Your task to perform on an android device: Open the stopwatch Image 0: 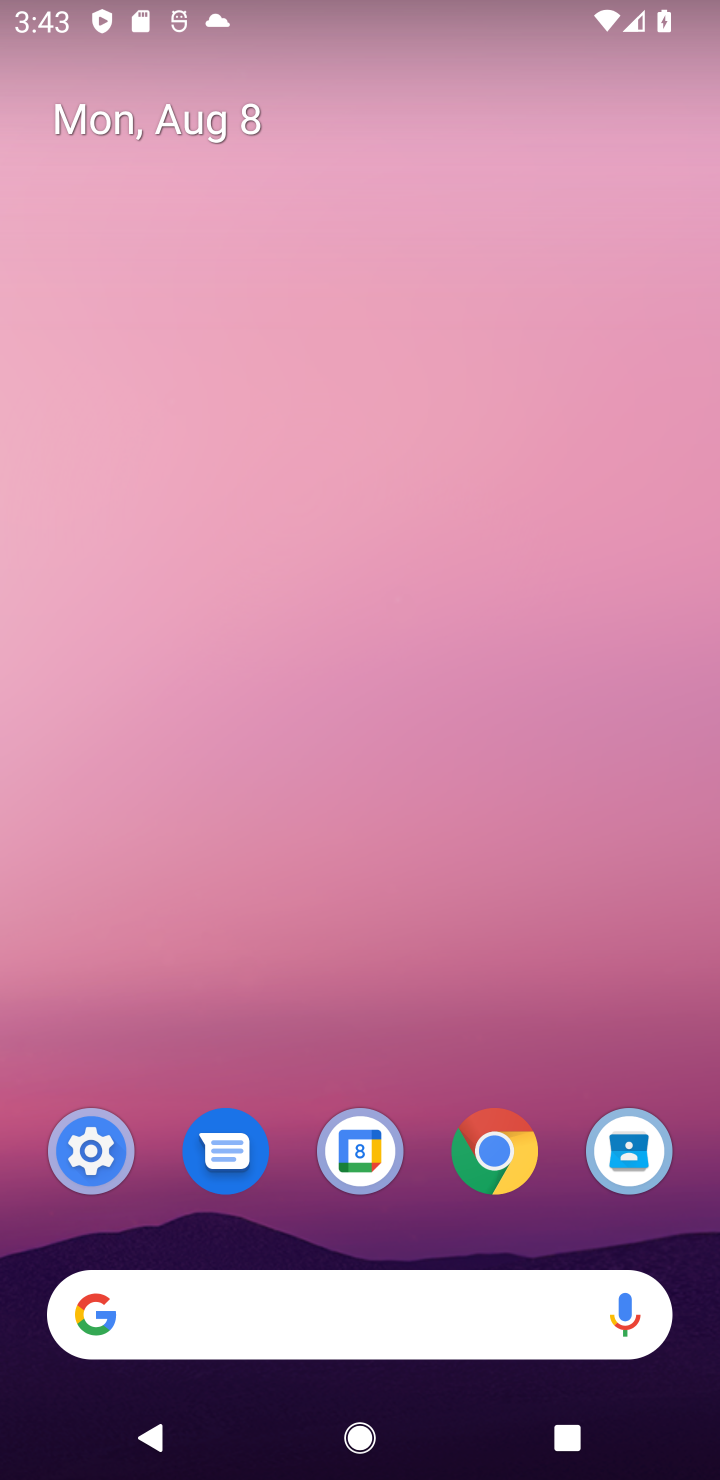
Step 0: drag from (313, 954) to (258, 222)
Your task to perform on an android device: Open the stopwatch Image 1: 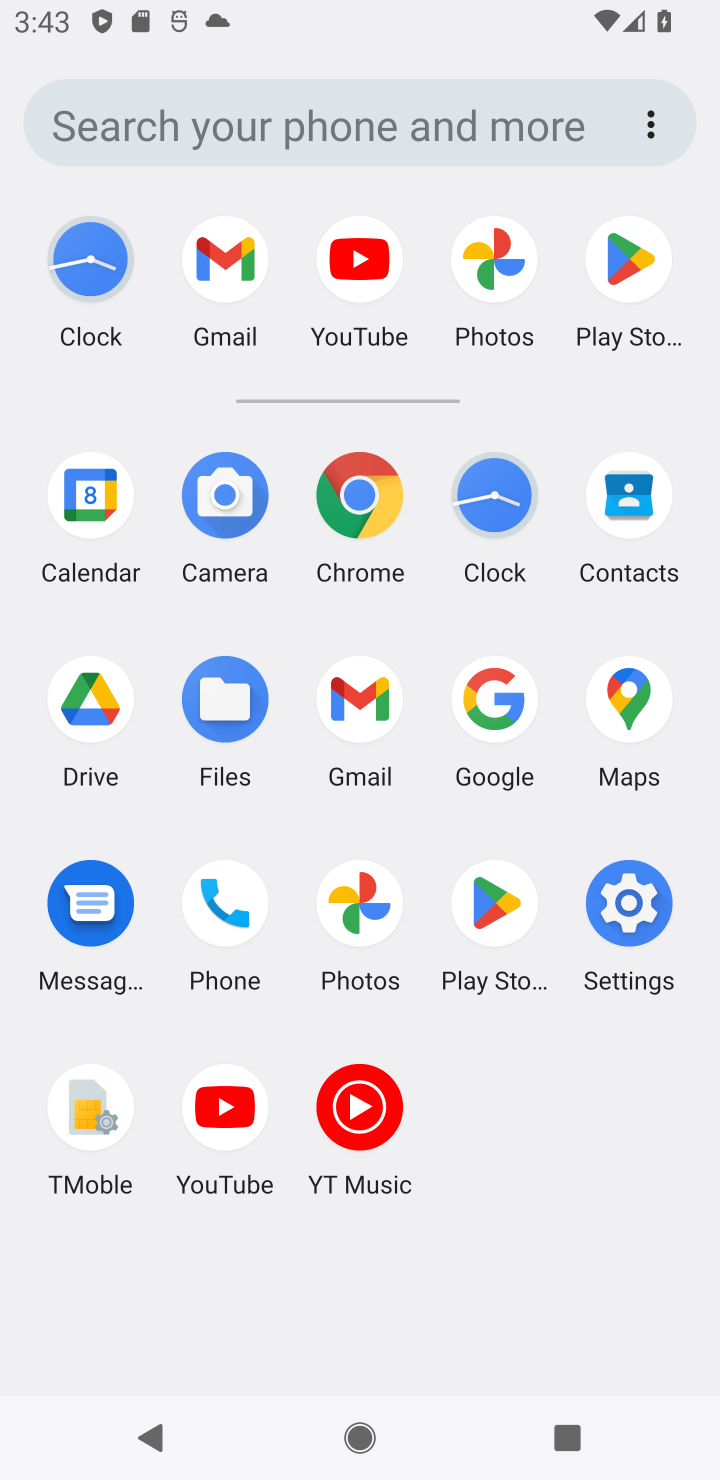
Step 1: click (482, 473)
Your task to perform on an android device: Open the stopwatch Image 2: 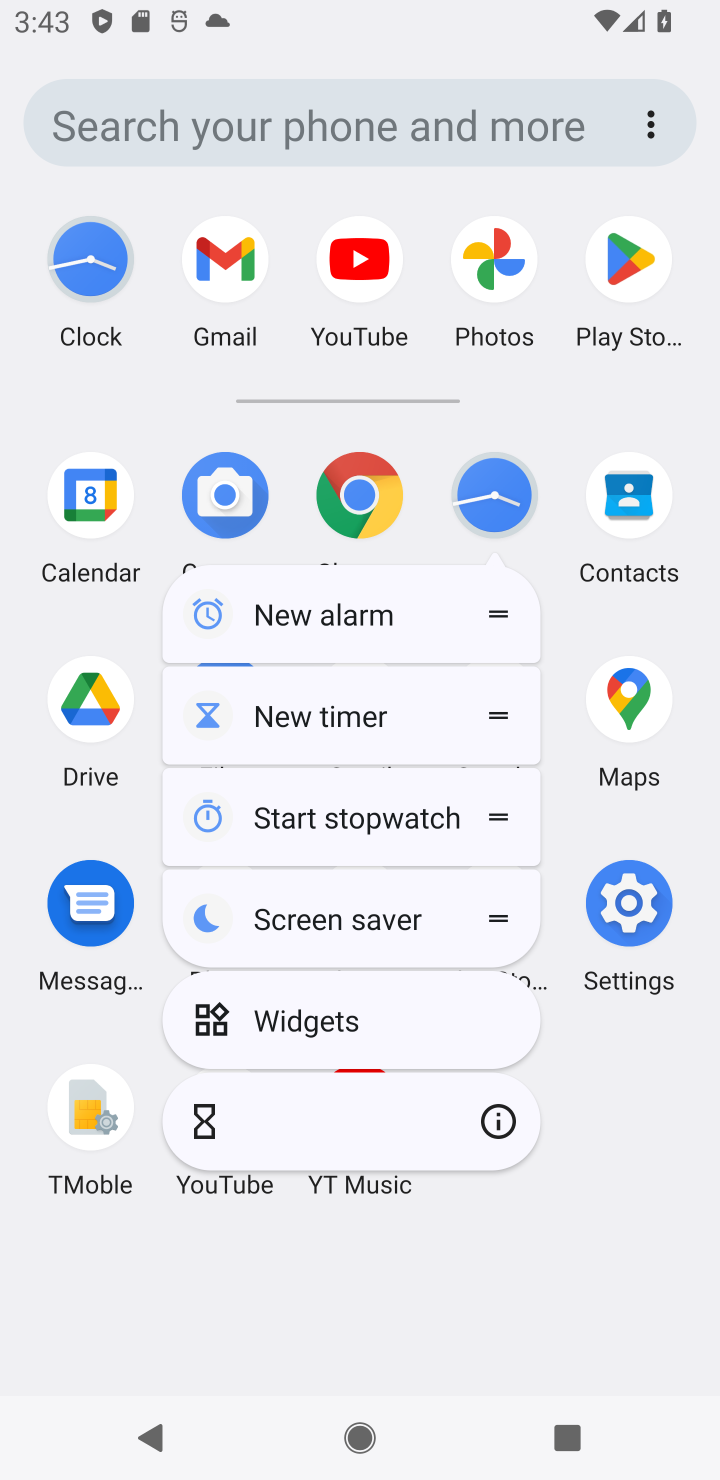
Step 2: click (482, 473)
Your task to perform on an android device: Open the stopwatch Image 3: 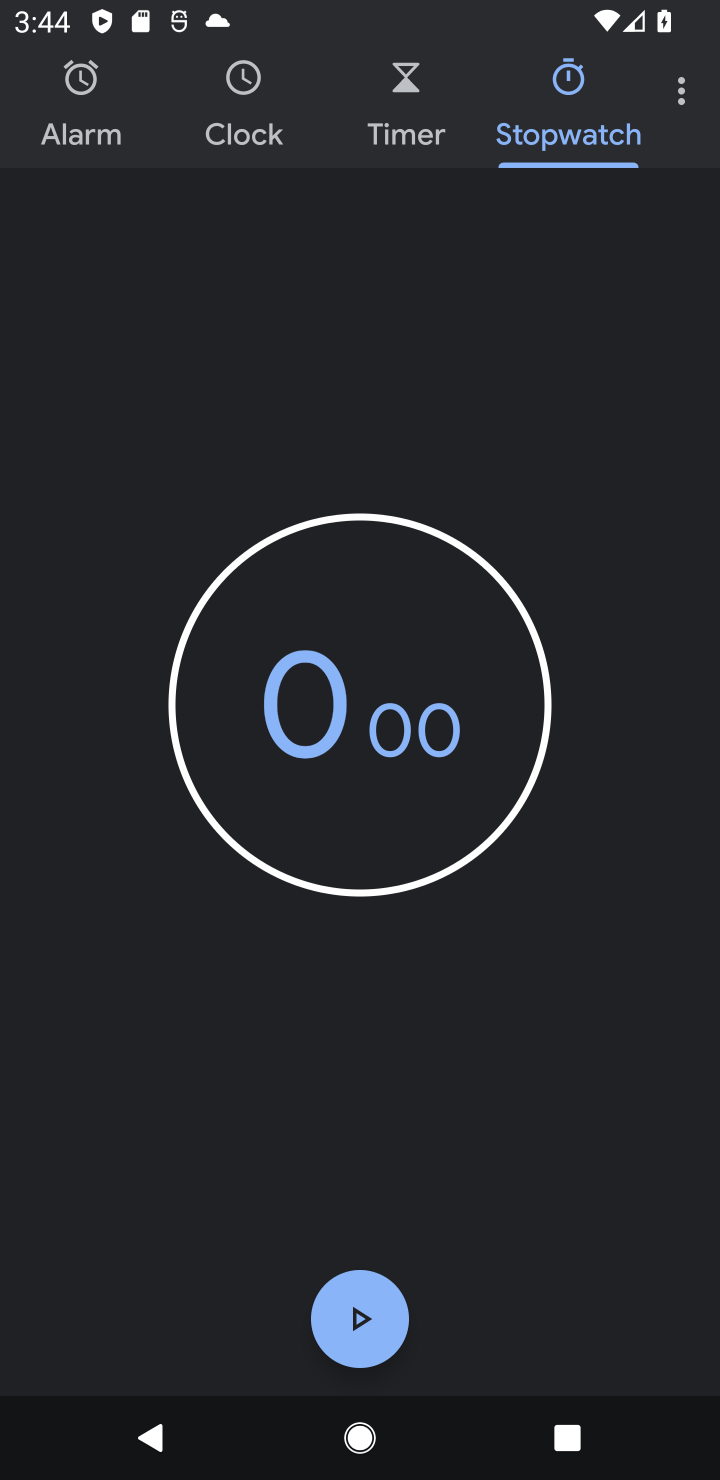
Step 3: task complete